Your task to perform on an android device: turn off notifications settings in the gmail app Image 0: 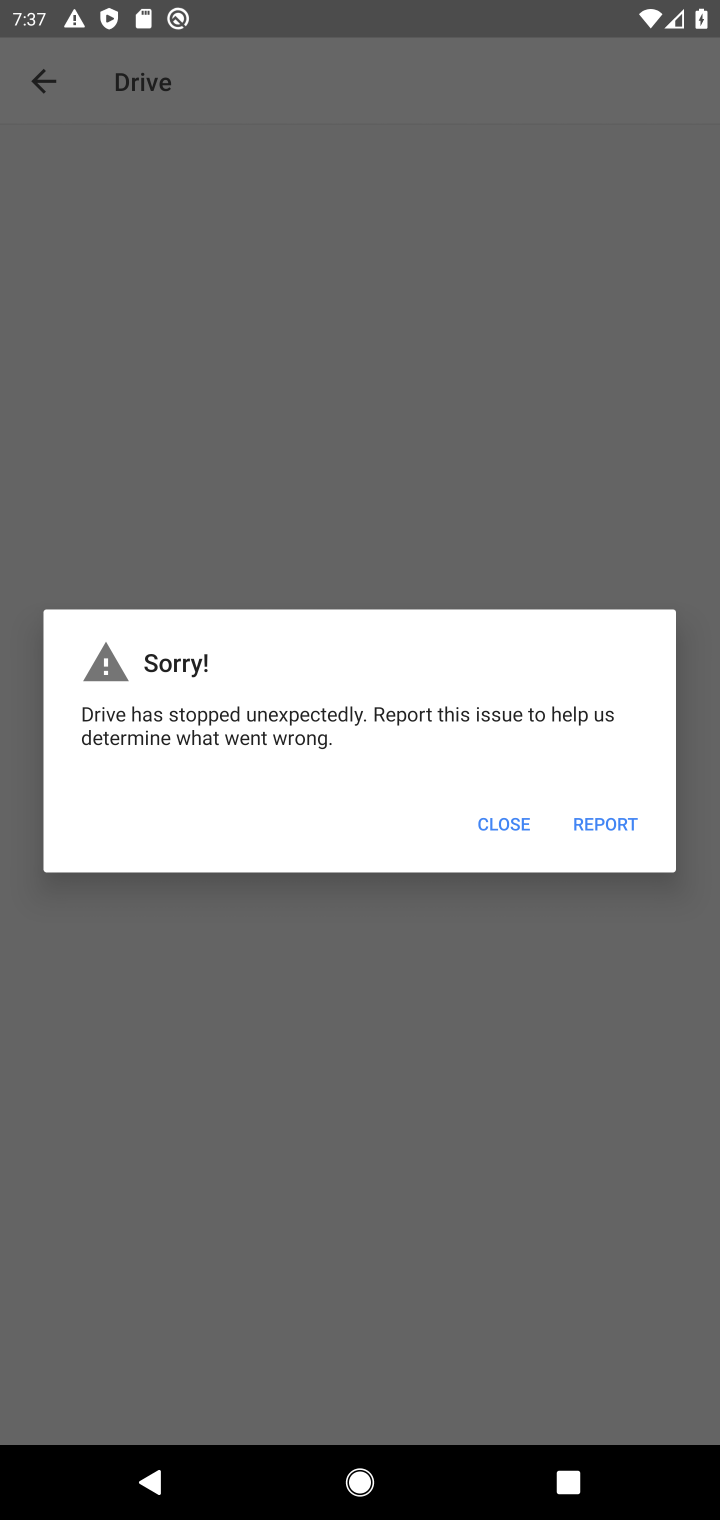
Step 0: press home button
Your task to perform on an android device: turn off notifications settings in the gmail app Image 1: 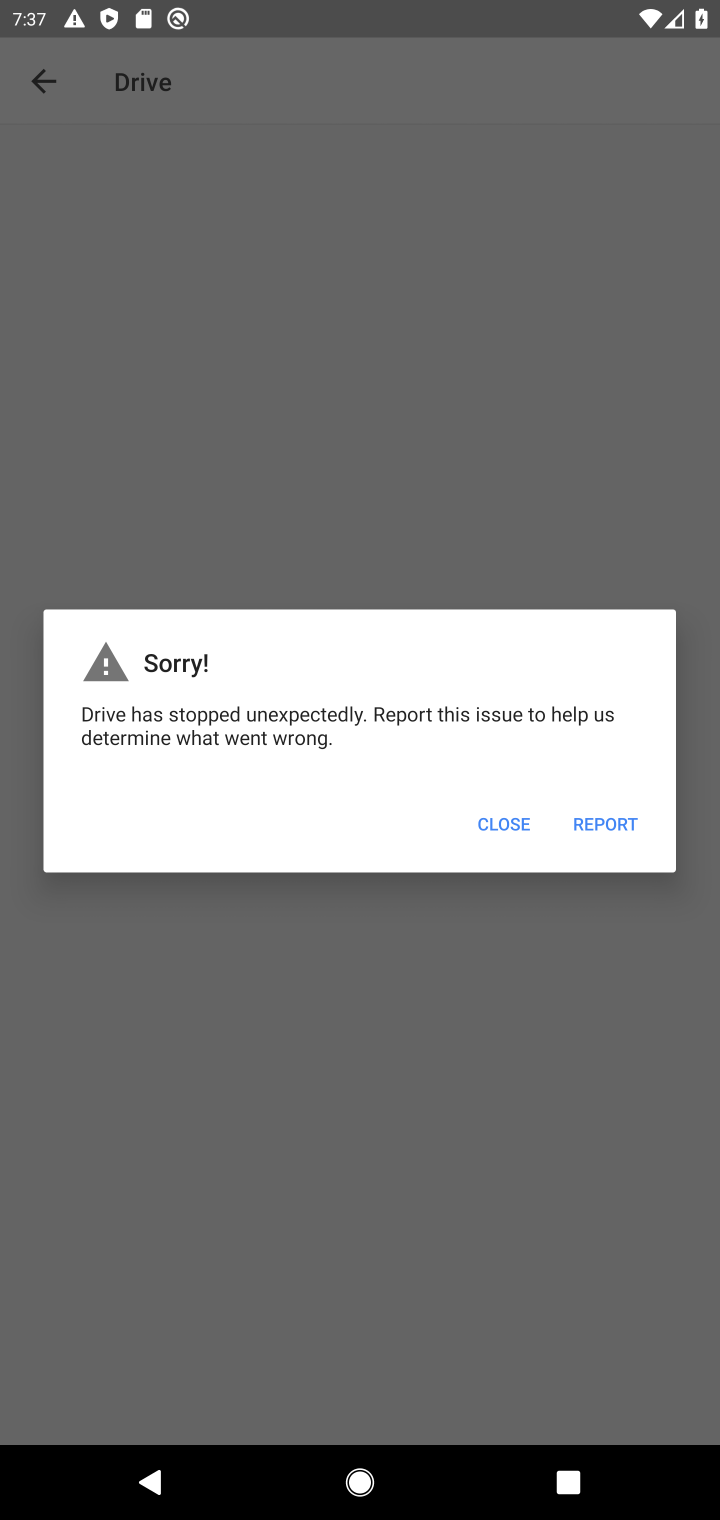
Step 1: press home button
Your task to perform on an android device: turn off notifications settings in the gmail app Image 2: 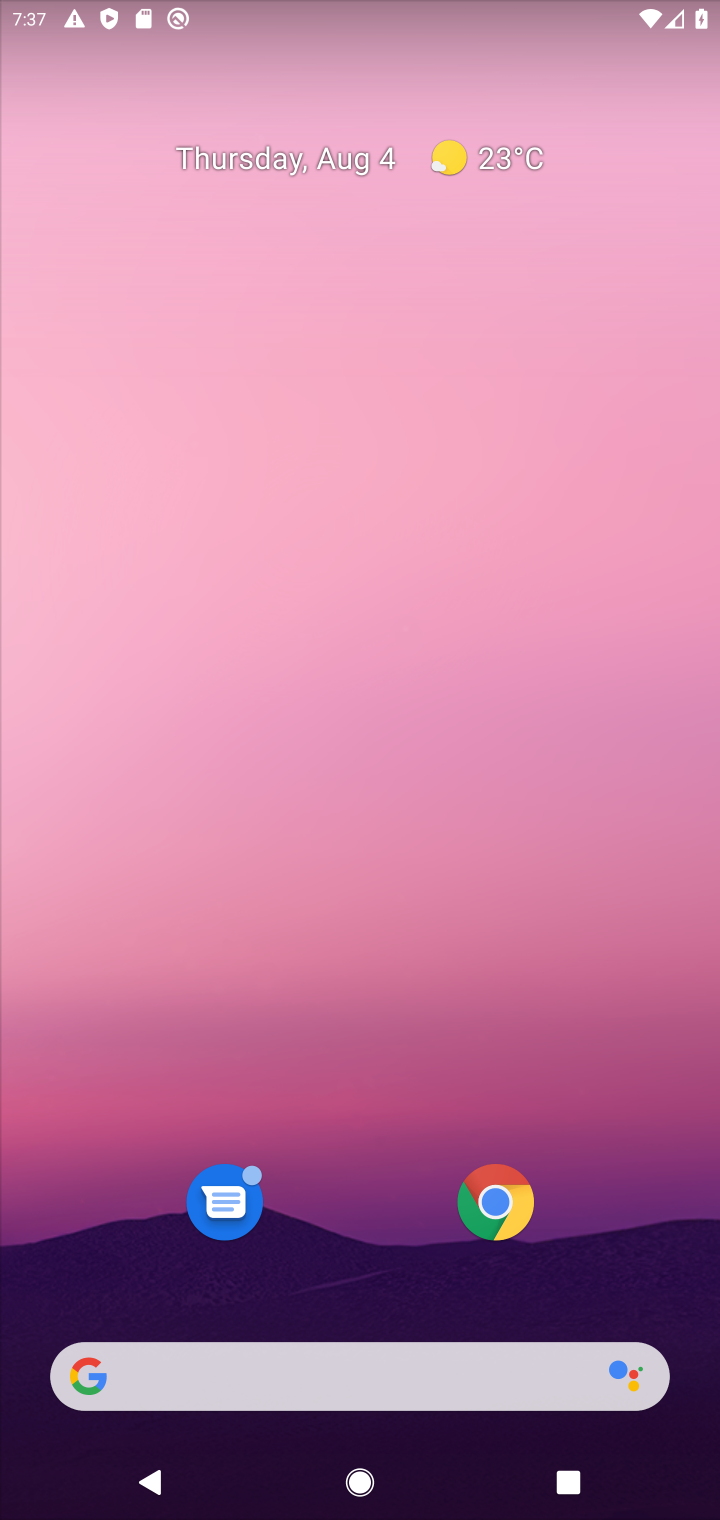
Step 2: drag from (385, 924) to (621, 125)
Your task to perform on an android device: turn off notifications settings in the gmail app Image 3: 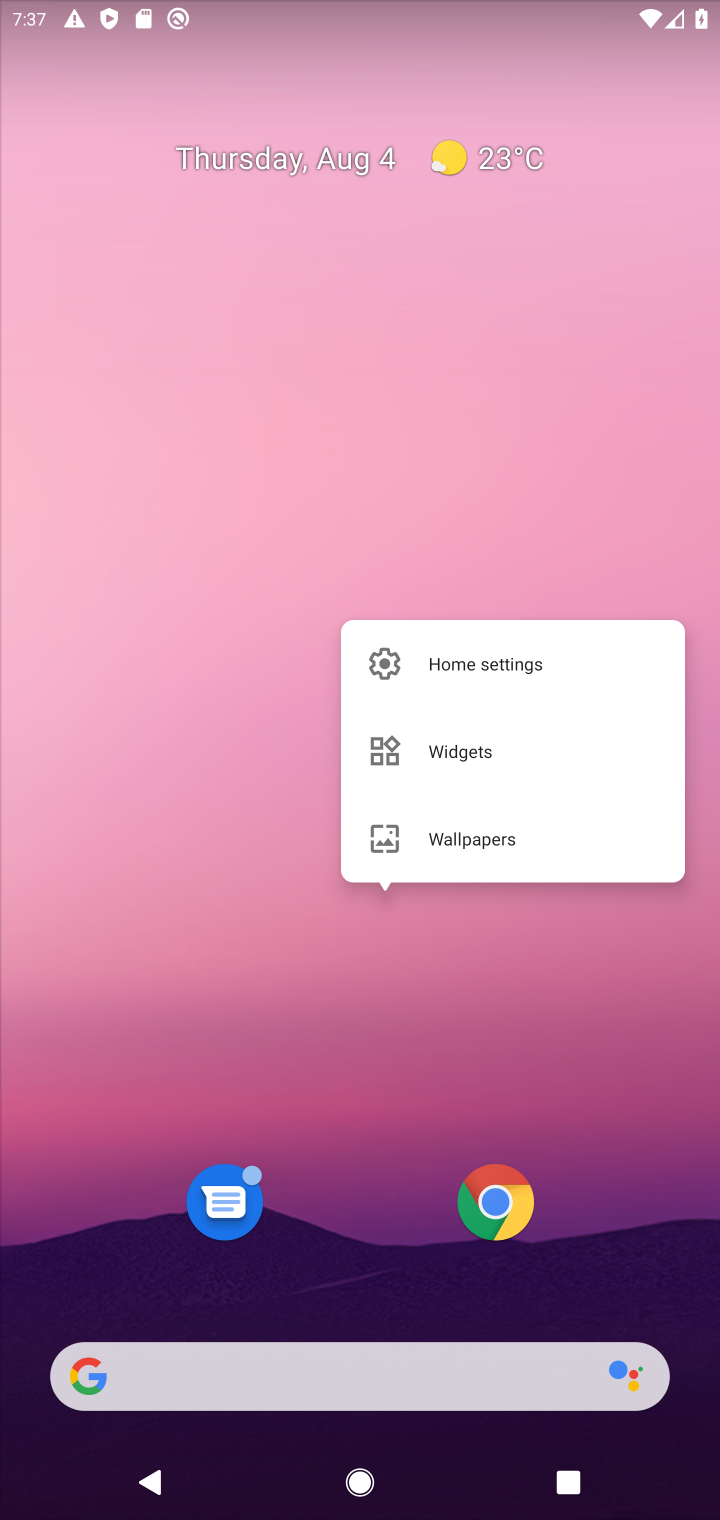
Step 3: drag from (357, 967) to (537, 100)
Your task to perform on an android device: turn off notifications settings in the gmail app Image 4: 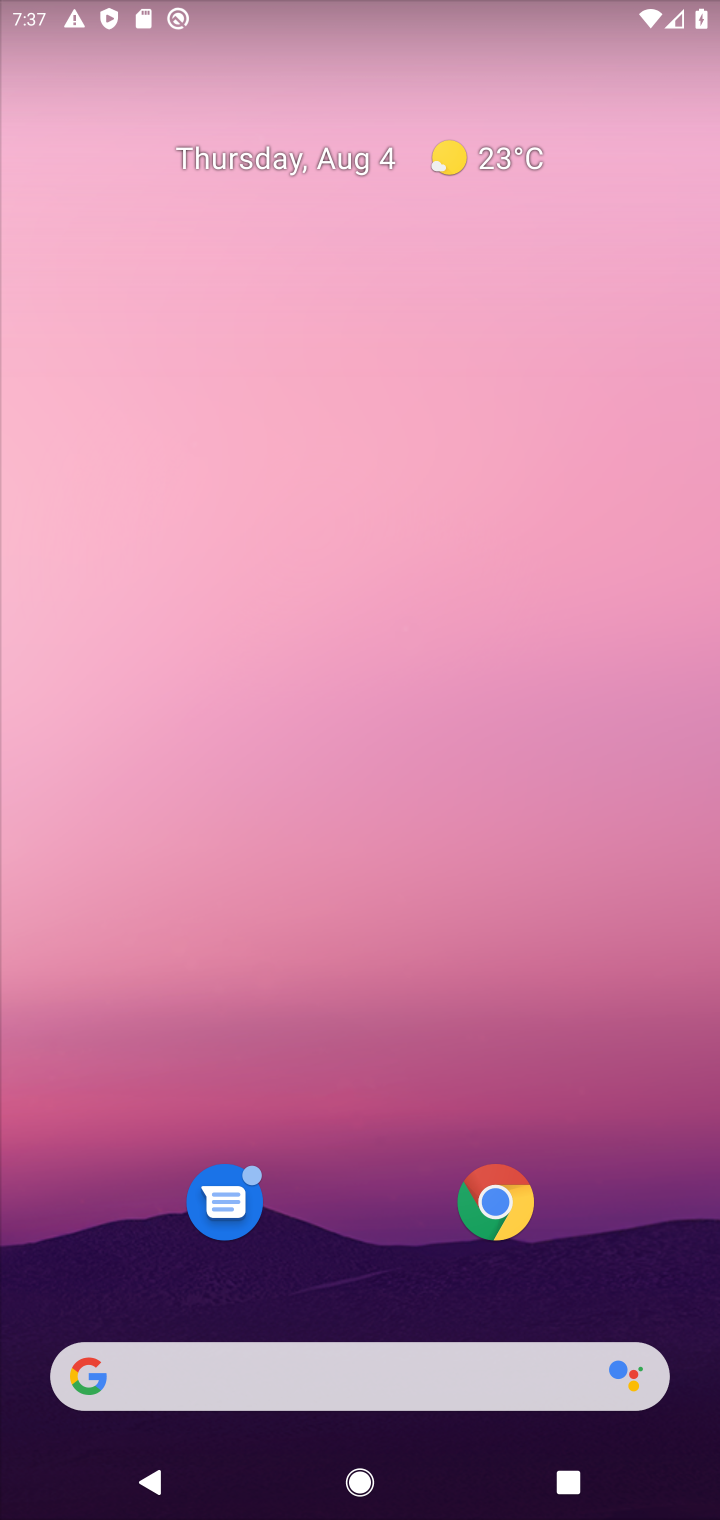
Step 4: drag from (391, 537) to (449, 168)
Your task to perform on an android device: turn off notifications settings in the gmail app Image 5: 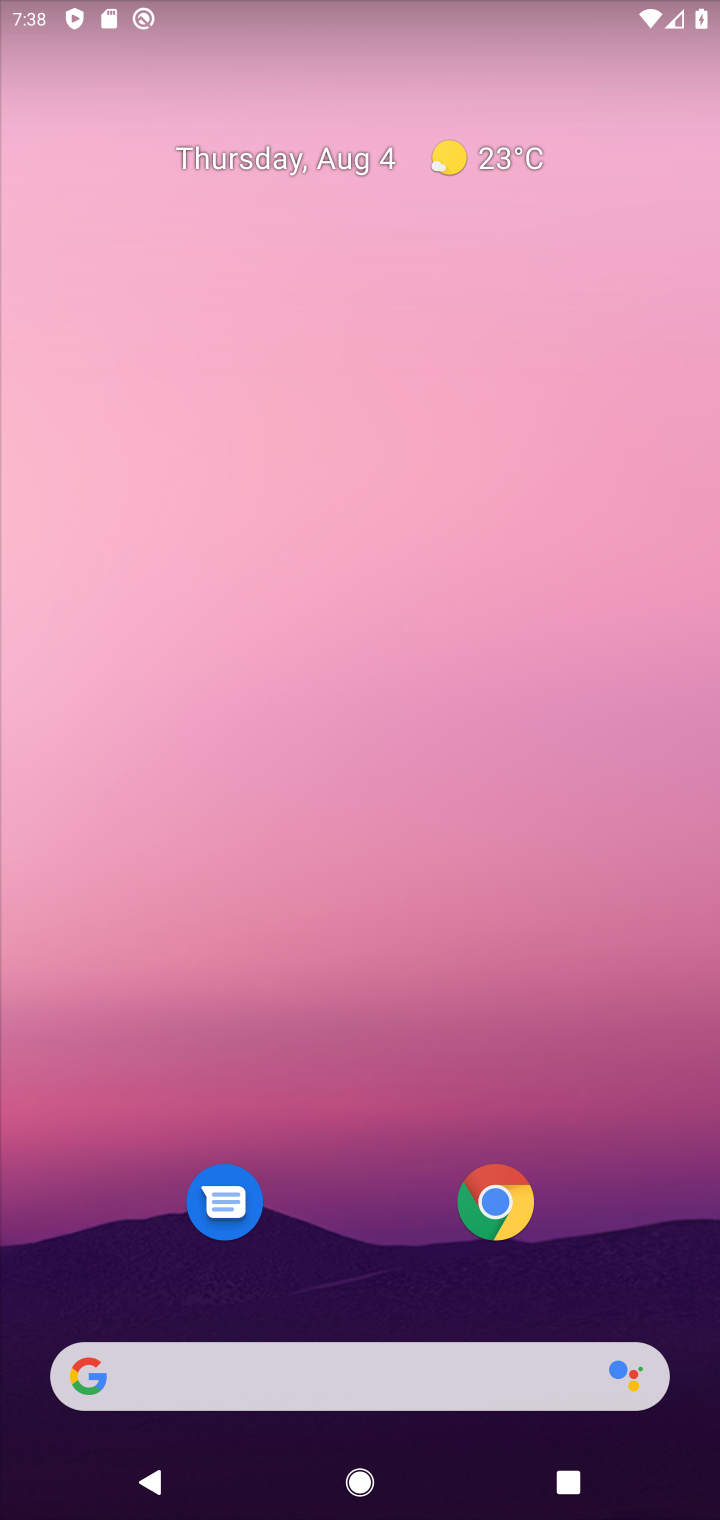
Step 5: drag from (363, 1108) to (453, 157)
Your task to perform on an android device: turn off notifications settings in the gmail app Image 6: 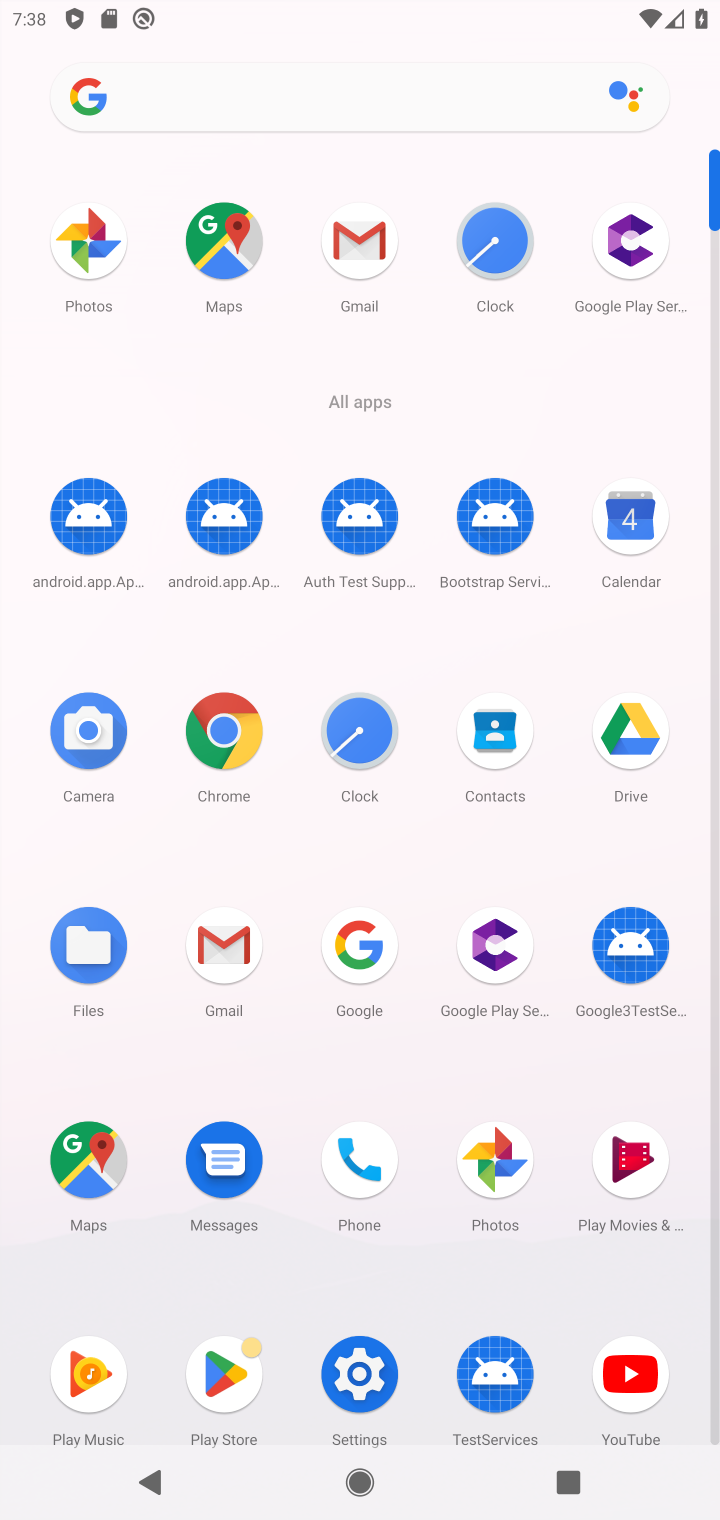
Step 6: click (251, 920)
Your task to perform on an android device: turn off notifications settings in the gmail app Image 7: 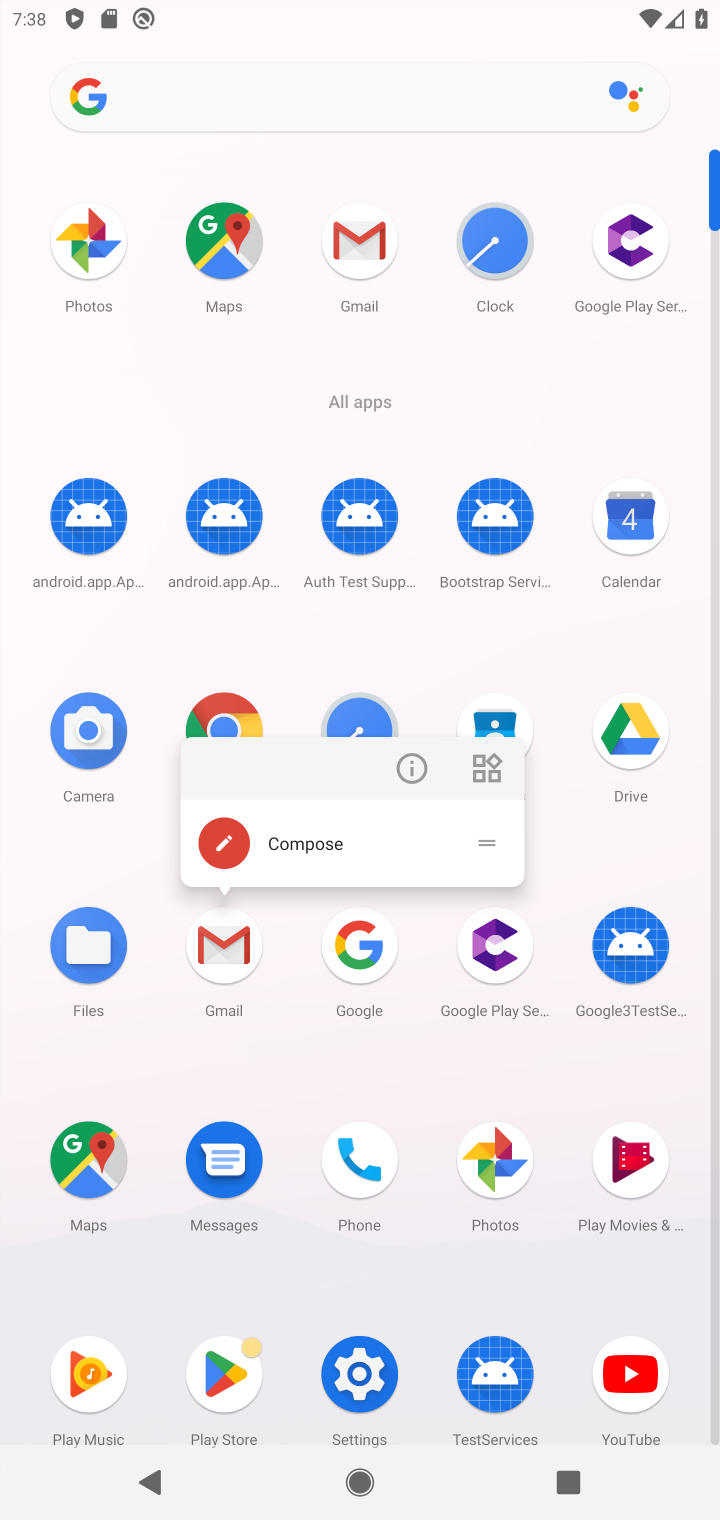
Step 7: click (394, 762)
Your task to perform on an android device: turn off notifications settings in the gmail app Image 8: 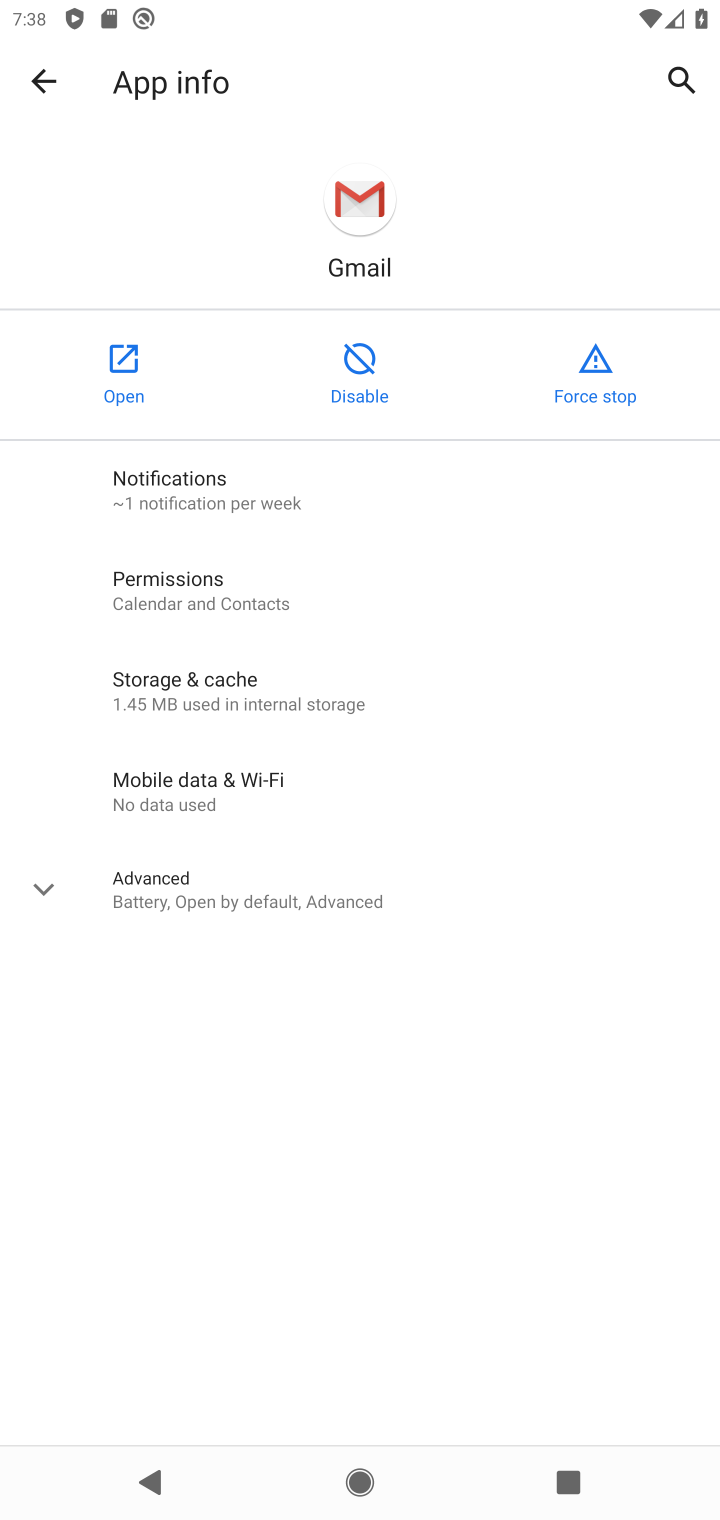
Step 8: click (454, 870)
Your task to perform on an android device: turn off notifications settings in the gmail app Image 9: 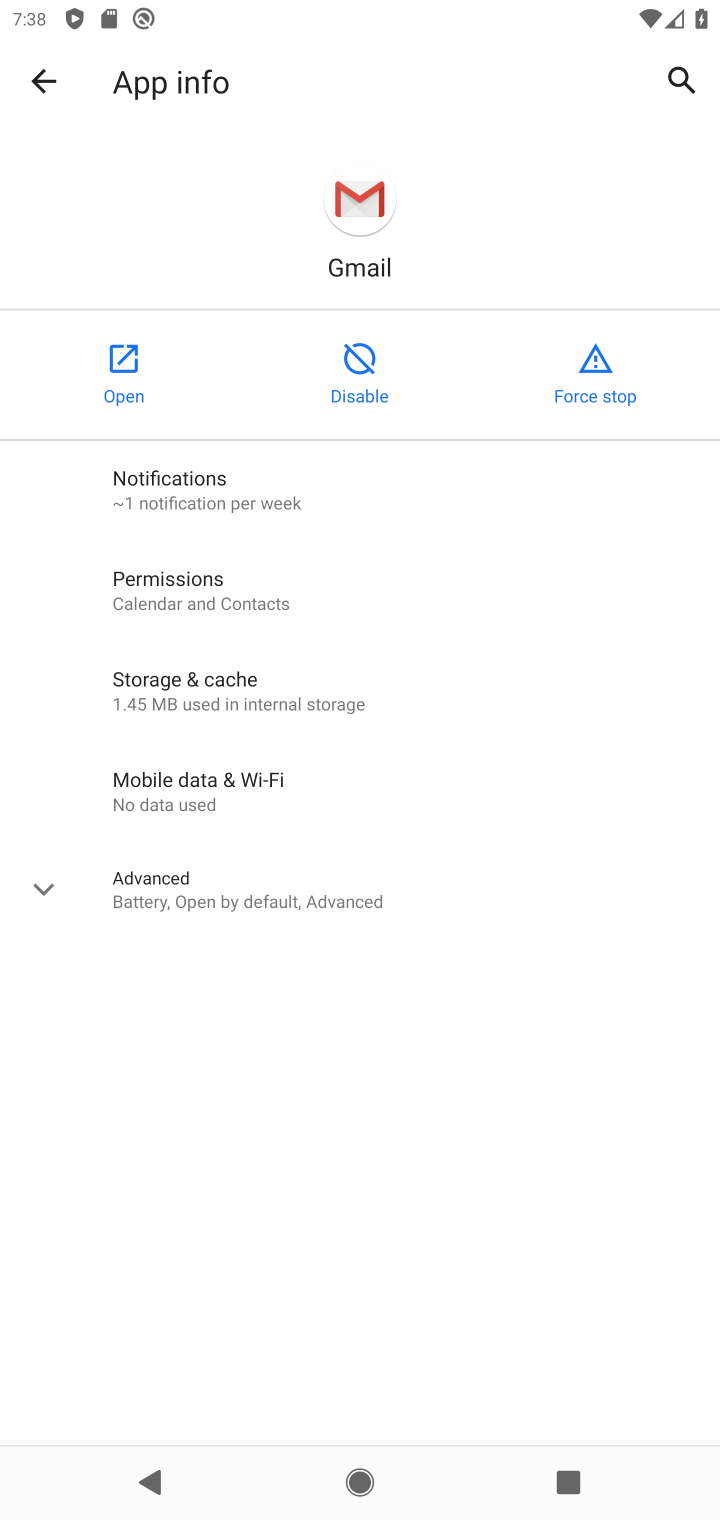
Step 9: press back button
Your task to perform on an android device: turn off notifications settings in the gmail app Image 10: 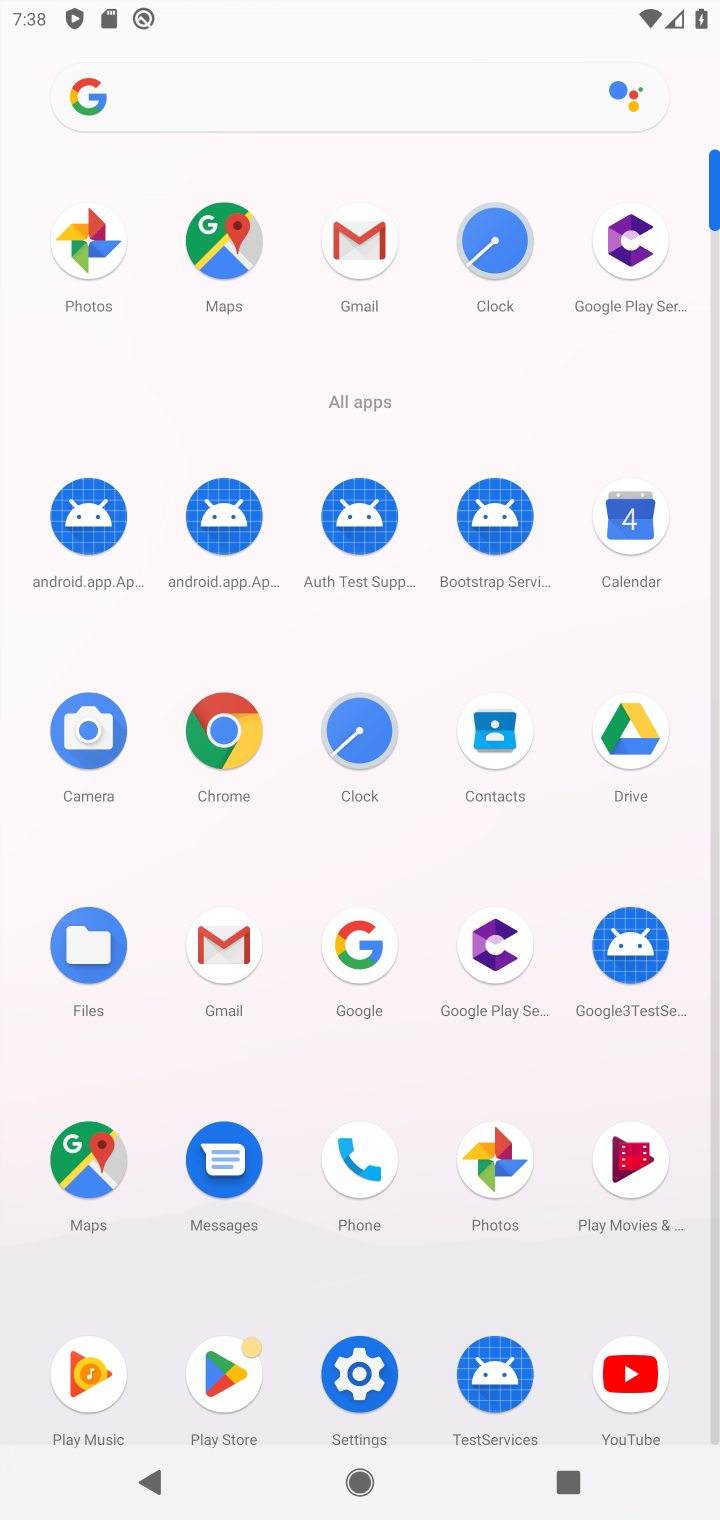
Step 10: click (127, 384)
Your task to perform on an android device: turn off notifications settings in the gmail app Image 11: 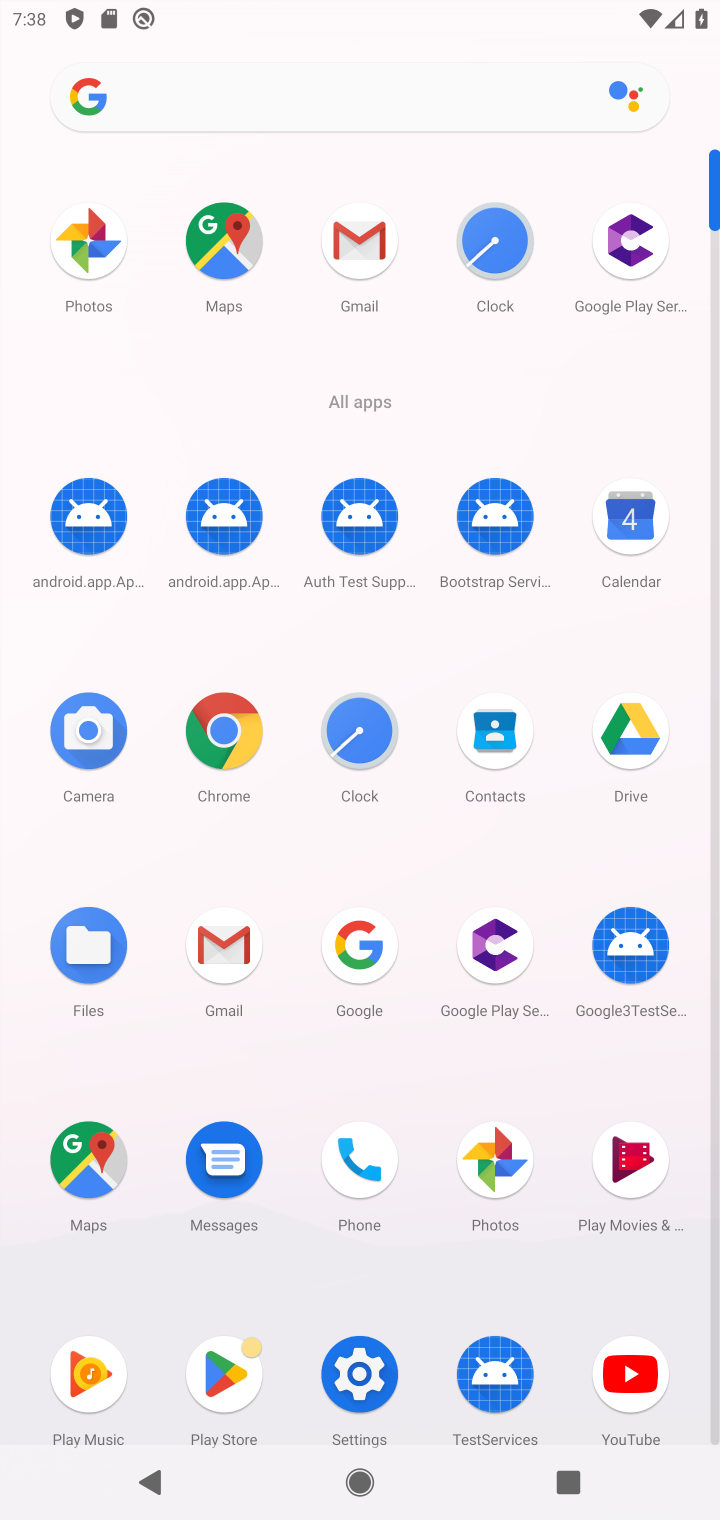
Step 11: click (222, 963)
Your task to perform on an android device: turn off notifications settings in the gmail app Image 12: 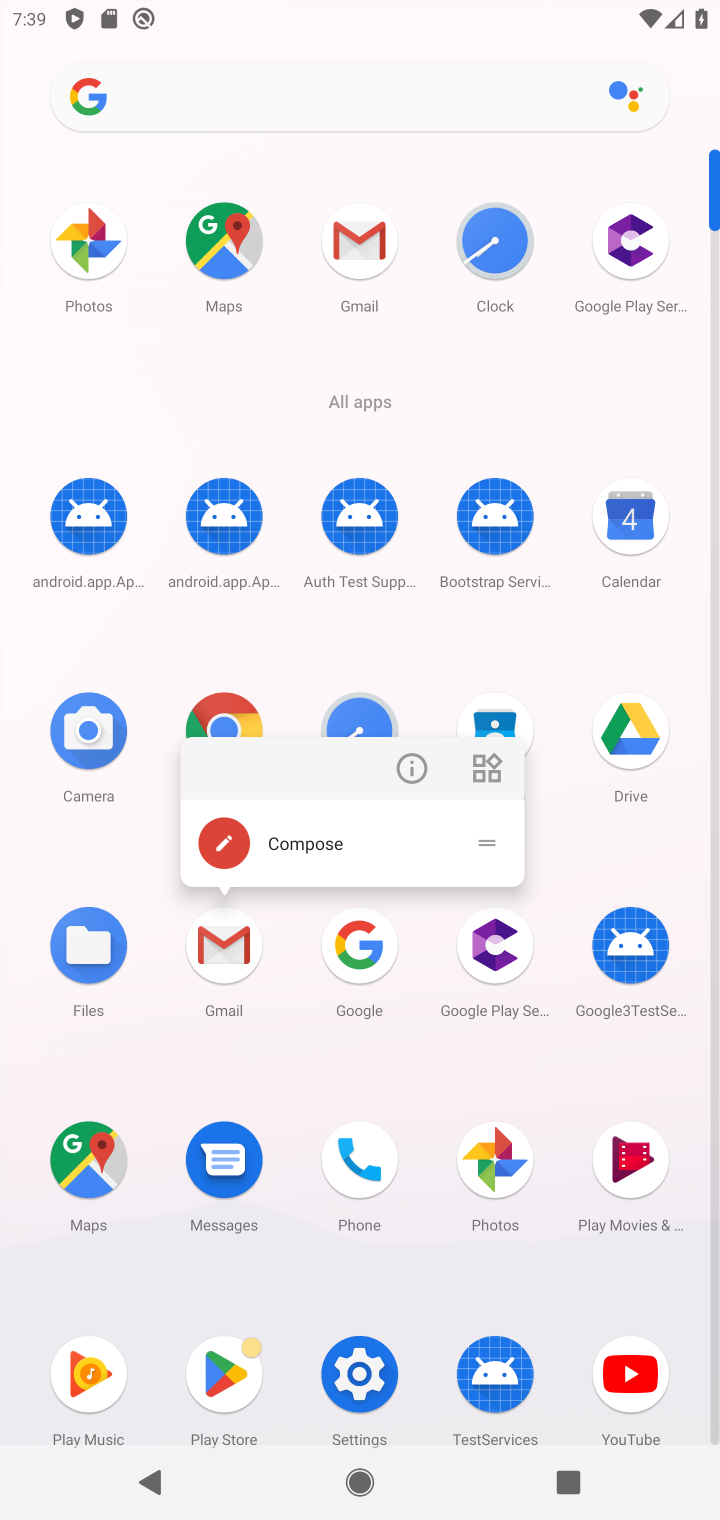
Step 12: click (419, 770)
Your task to perform on an android device: turn off notifications settings in the gmail app Image 13: 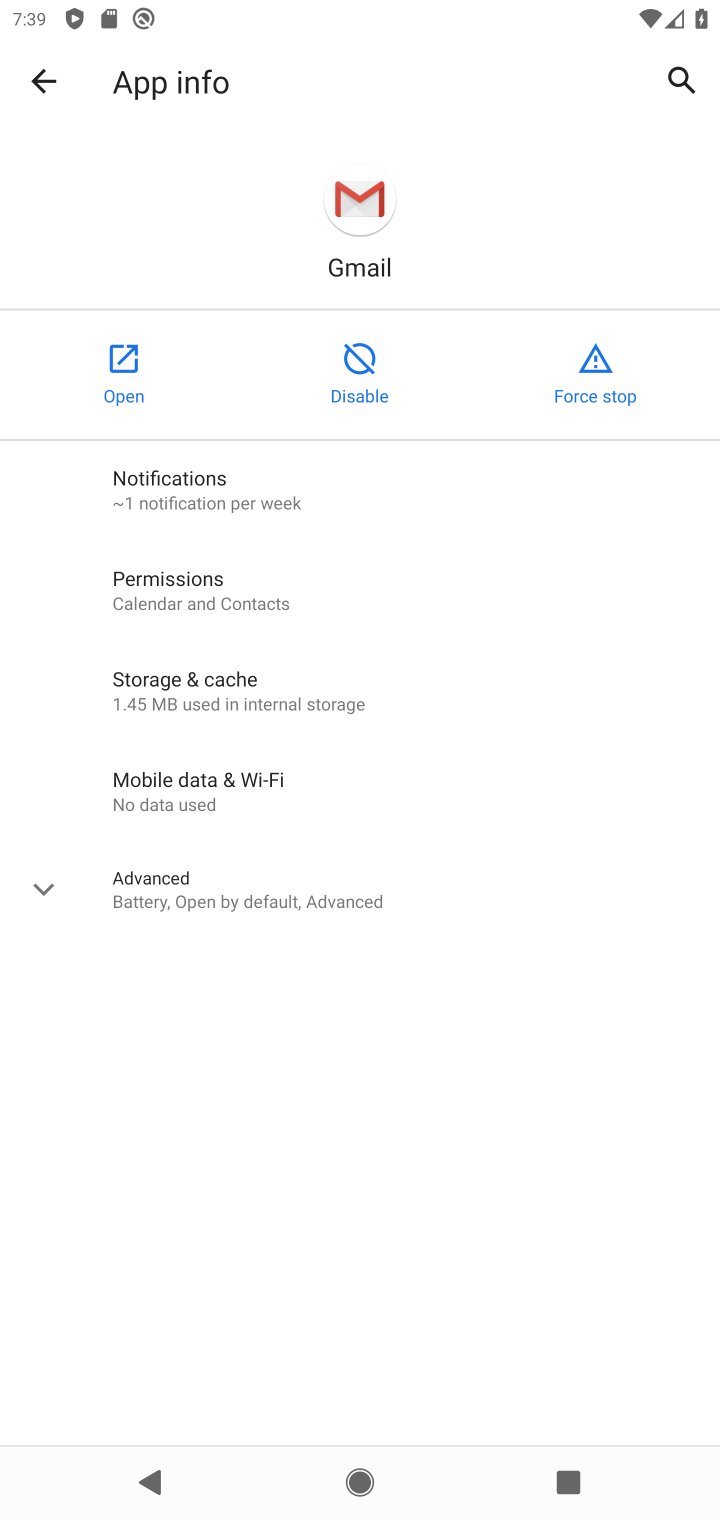
Step 13: click (125, 384)
Your task to perform on an android device: turn off notifications settings in the gmail app Image 14: 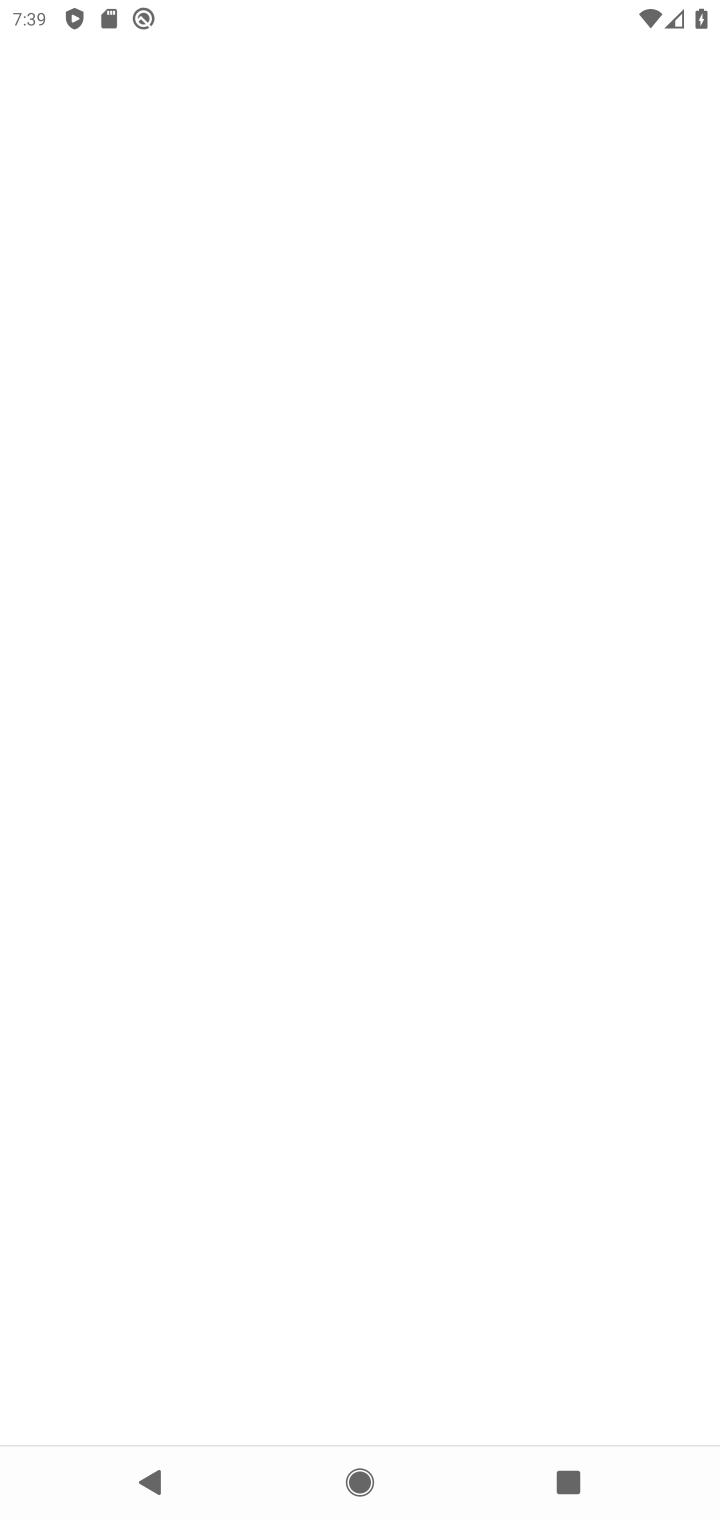
Step 14: click (125, 378)
Your task to perform on an android device: turn off notifications settings in the gmail app Image 15: 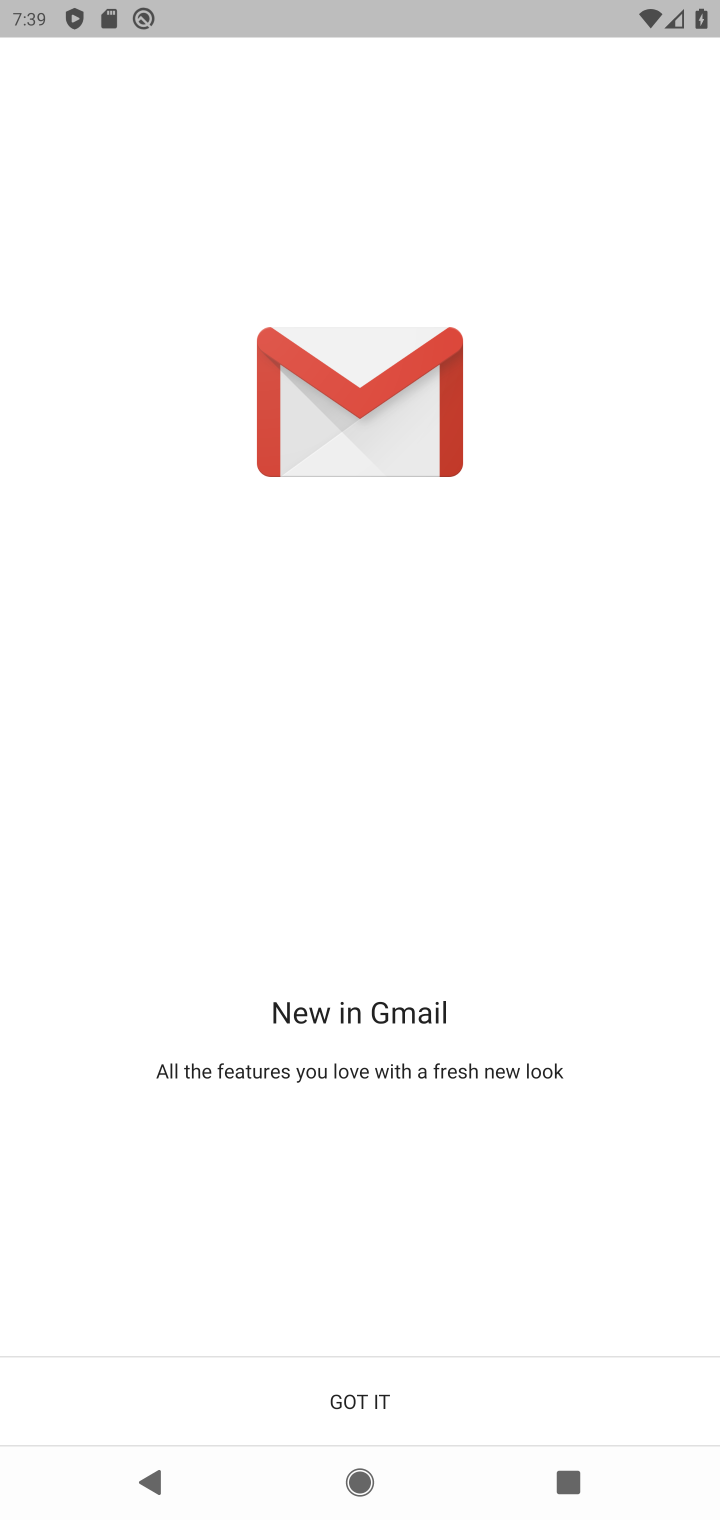
Step 15: drag from (425, 390) to (450, 277)
Your task to perform on an android device: turn off notifications settings in the gmail app Image 16: 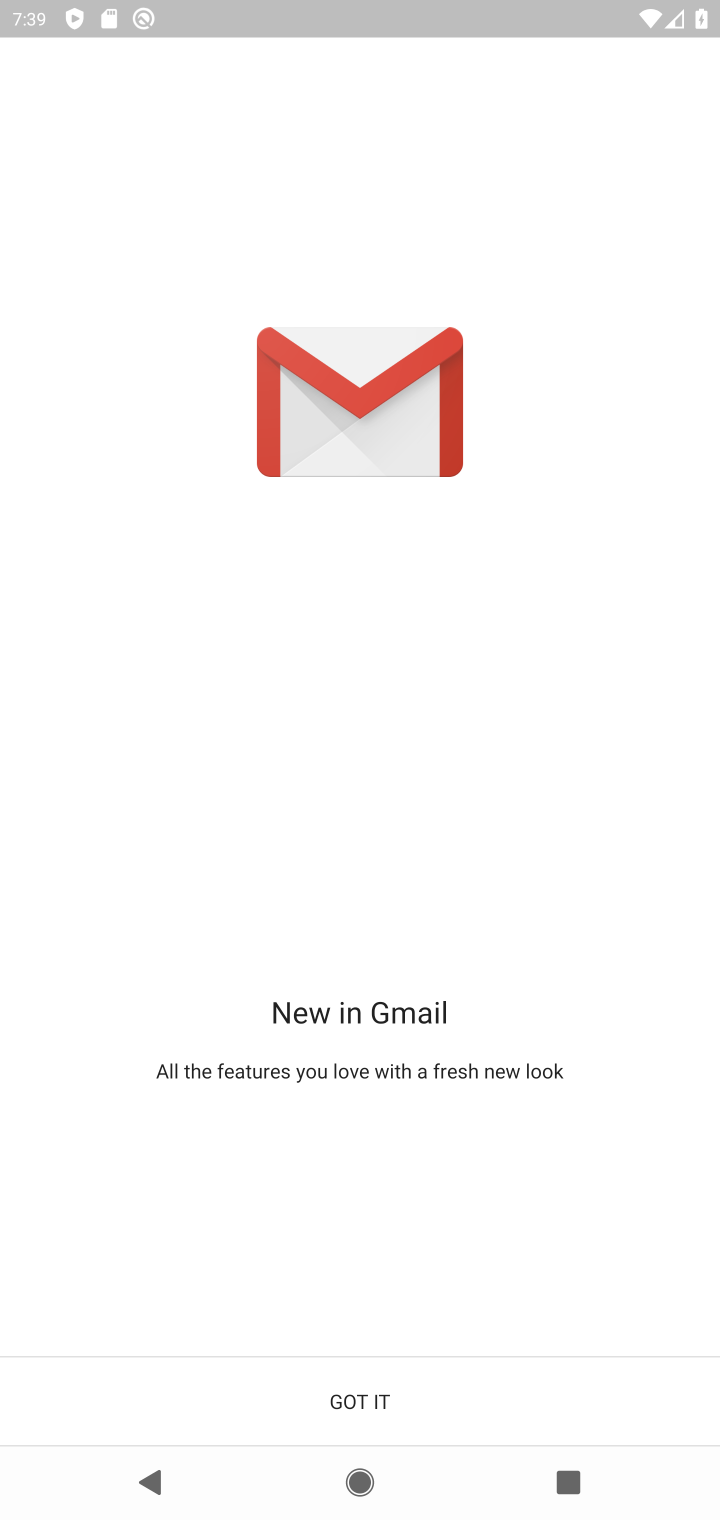
Step 16: click (310, 1399)
Your task to perform on an android device: turn off notifications settings in the gmail app Image 17: 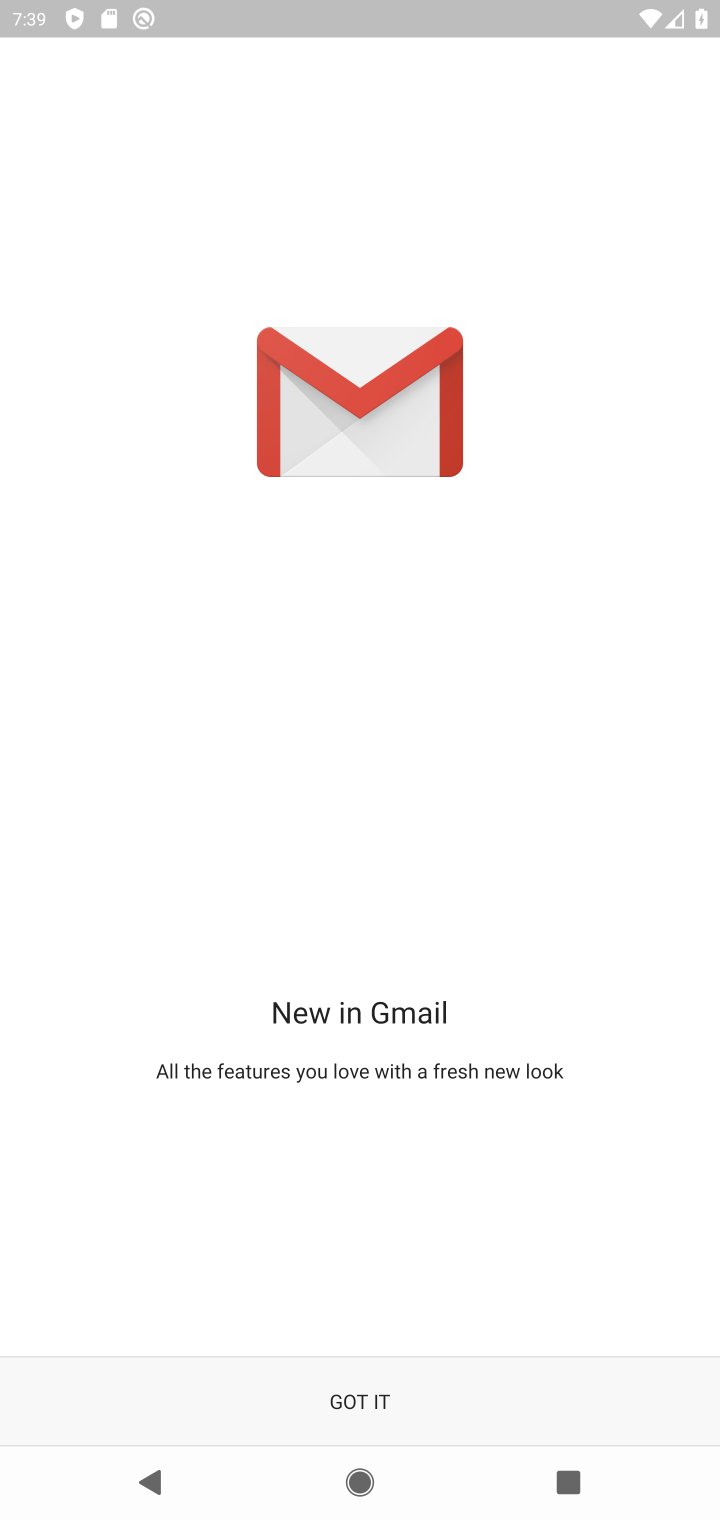
Step 17: click (373, 1407)
Your task to perform on an android device: turn off notifications settings in the gmail app Image 18: 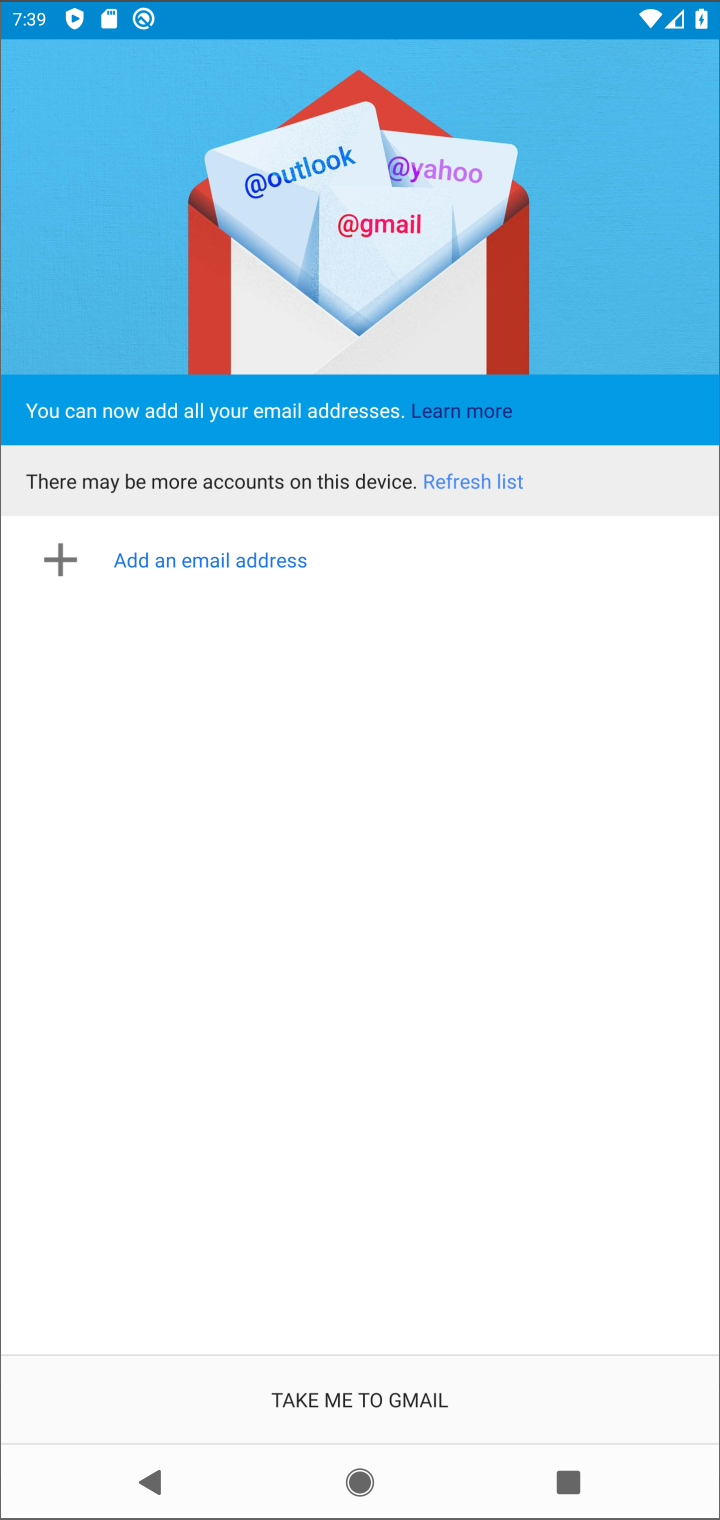
Step 18: click (364, 1400)
Your task to perform on an android device: turn off notifications settings in the gmail app Image 19: 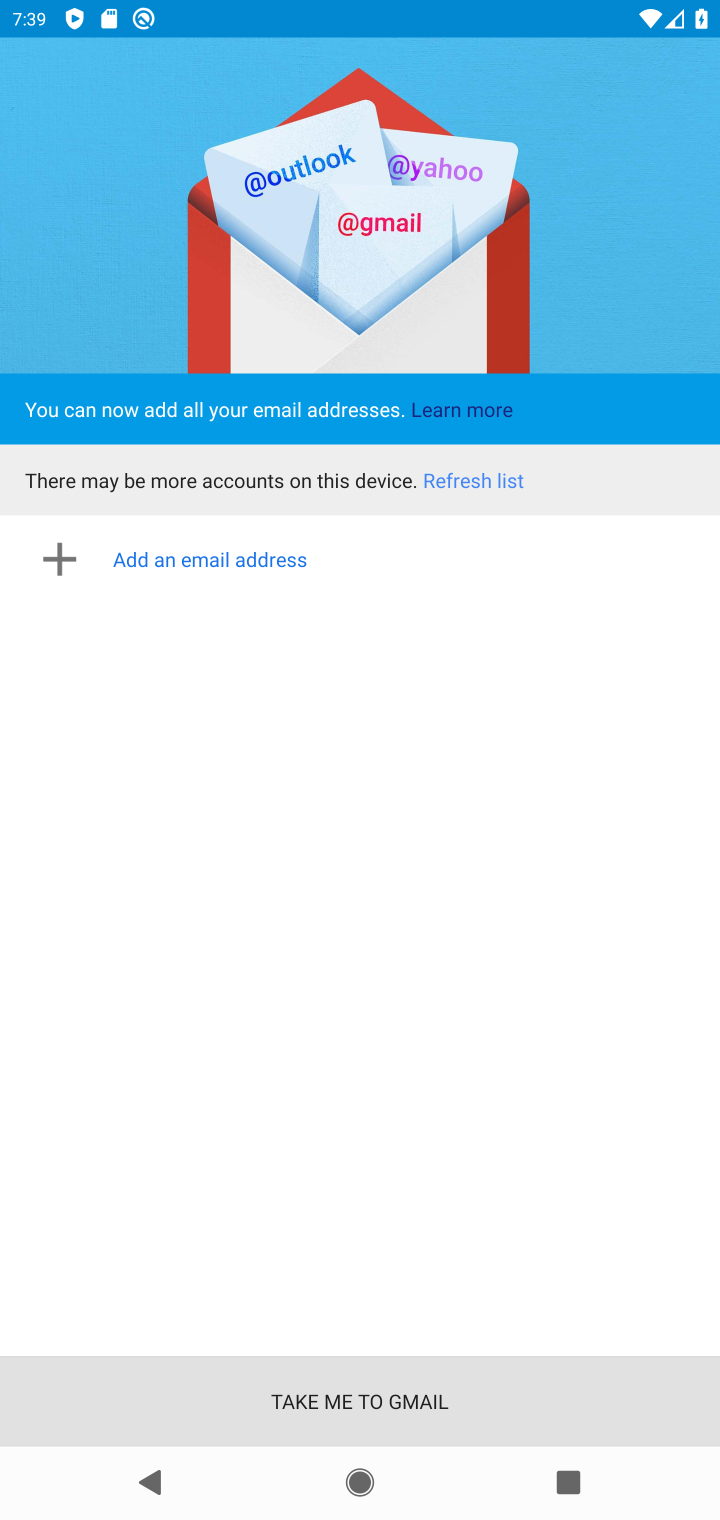
Step 19: click (358, 1394)
Your task to perform on an android device: turn off notifications settings in the gmail app Image 20: 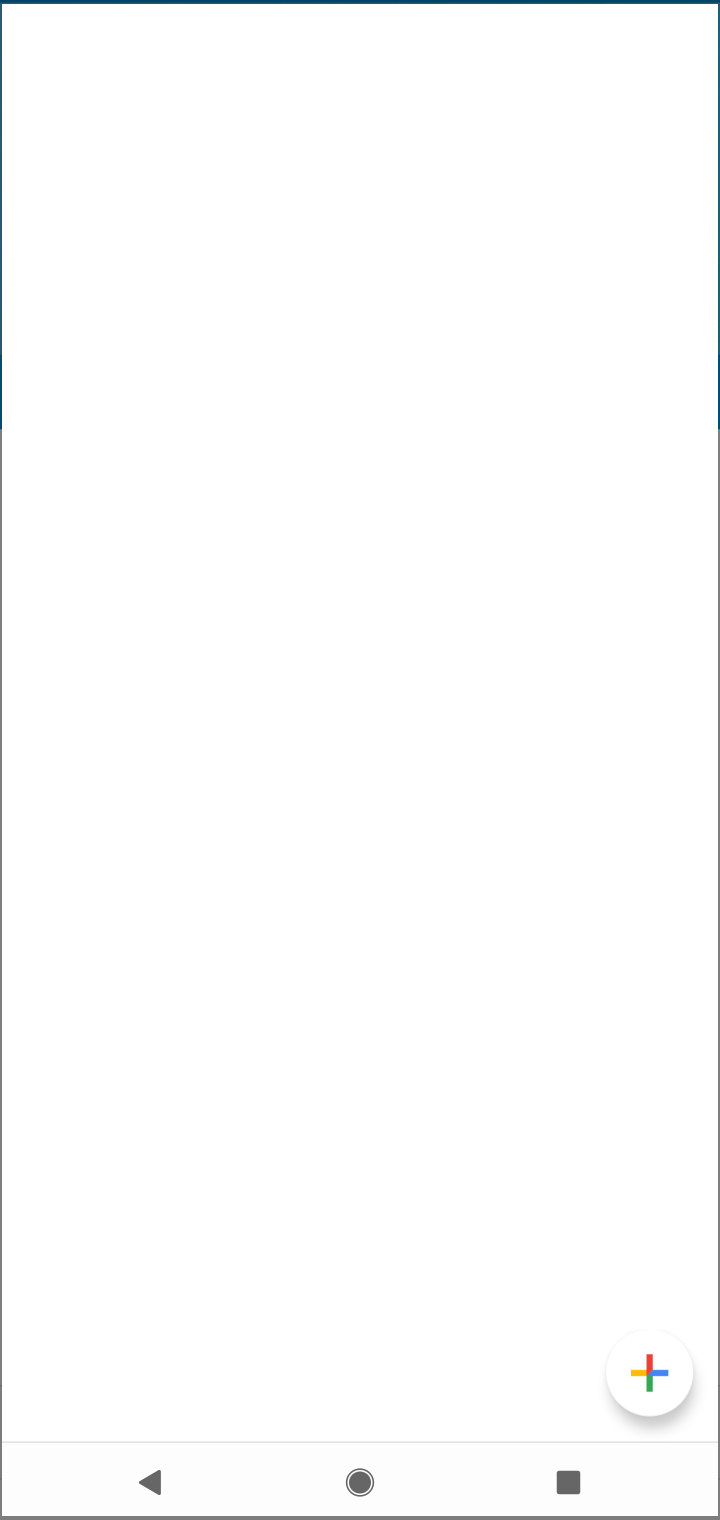
Step 20: click (338, 1412)
Your task to perform on an android device: turn off notifications settings in the gmail app Image 21: 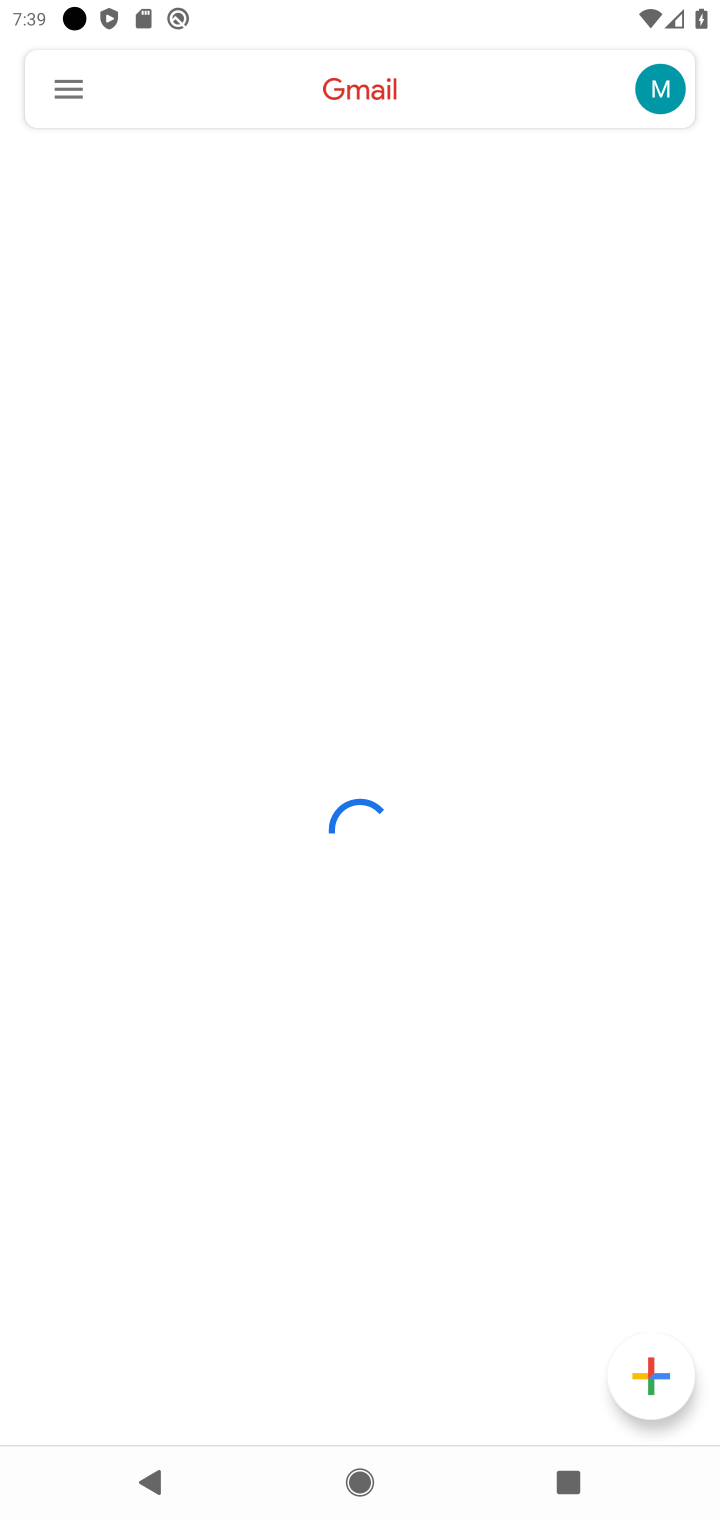
Step 21: click (66, 99)
Your task to perform on an android device: turn off notifications settings in the gmail app Image 22: 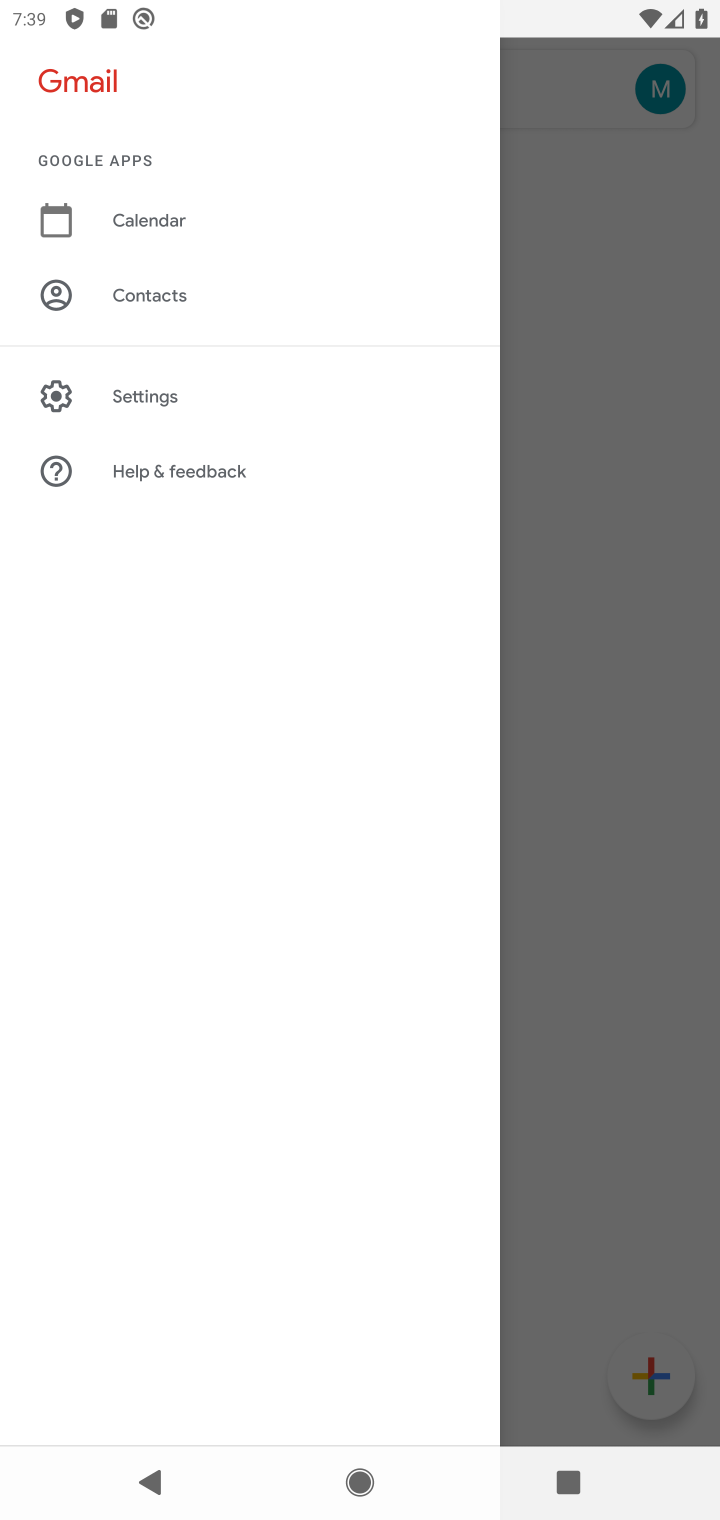
Step 22: click (126, 396)
Your task to perform on an android device: turn off notifications settings in the gmail app Image 23: 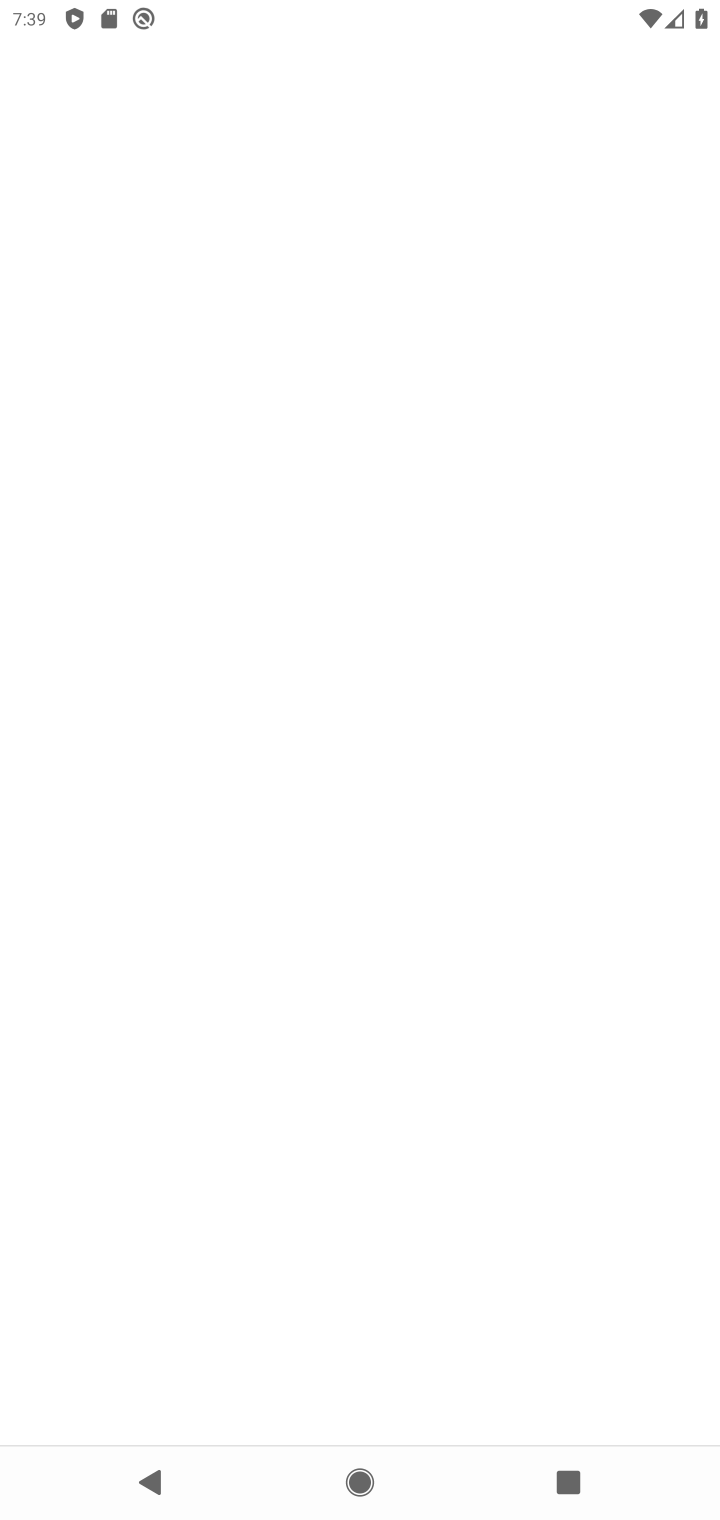
Step 23: drag from (300, 1199) to (369, 514)
Your task to perform on an android device: turn off notifications settings in the gmail app Image 24: 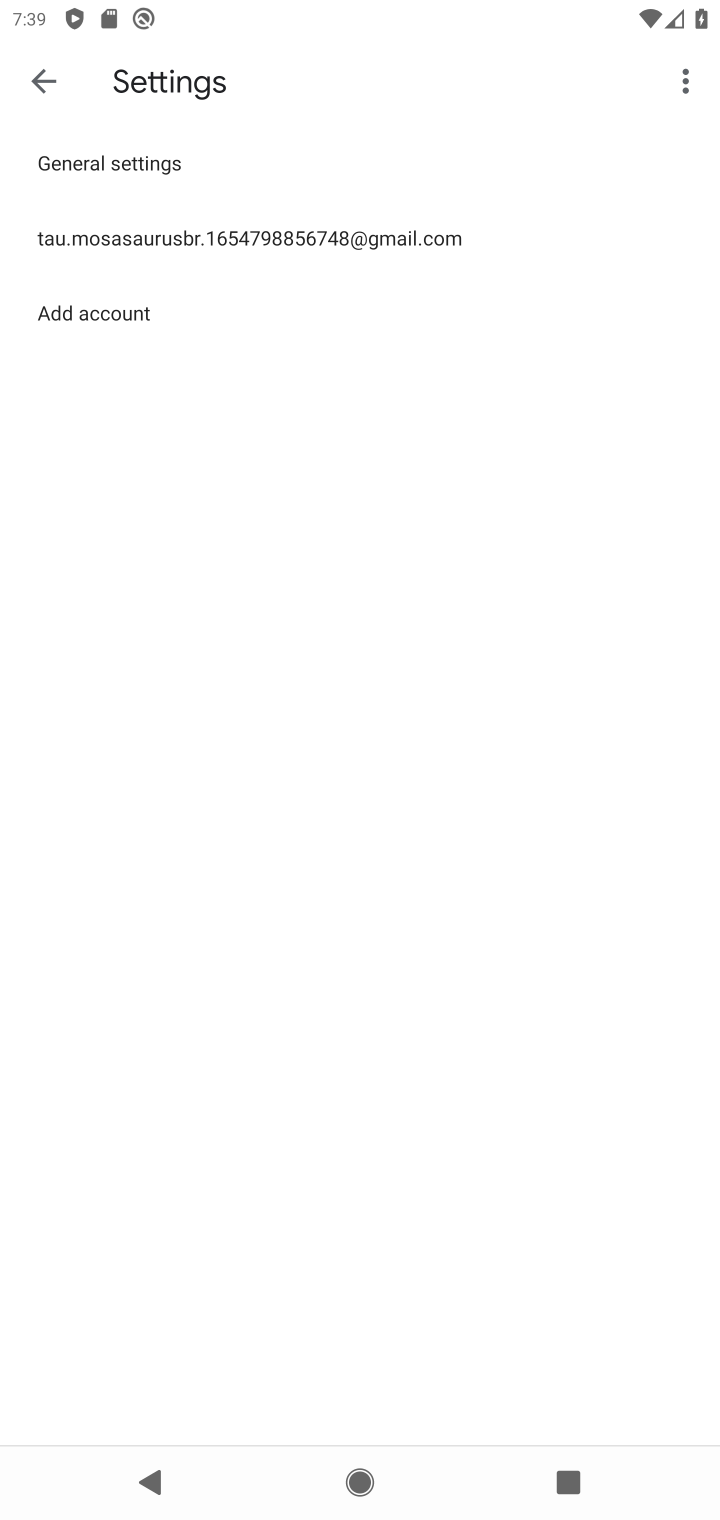
Step 24: click (301, 251)
Your task to perform on an android device: turn off notifications settings in the gmail app Image 25: 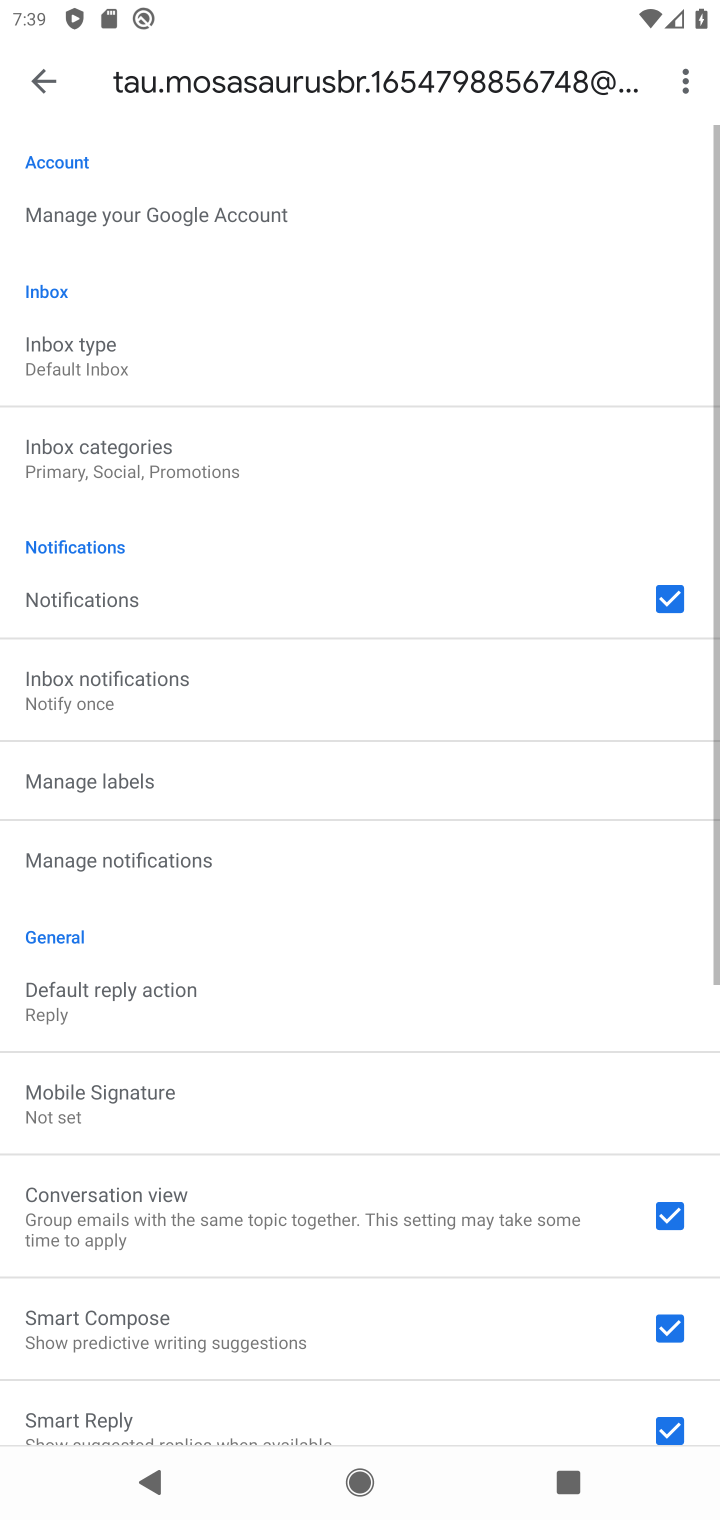
Step 25: click (140, 884)
Your task to perform on an android device: turn off notifications settings in the gmail app Image 26: 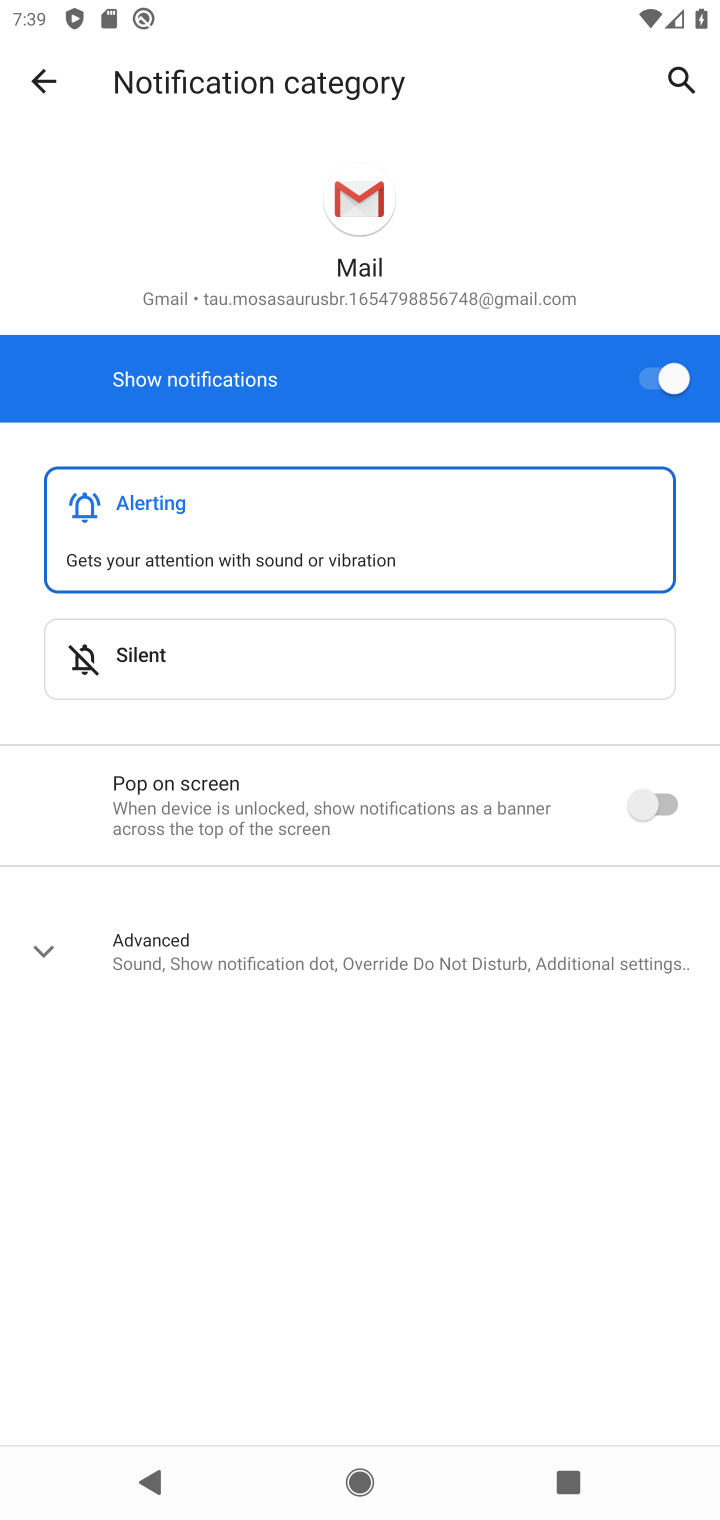
Step 26: click (653, 384)
Your task to perform on an android device: turn off notifications settings in the gmail app Image 27: 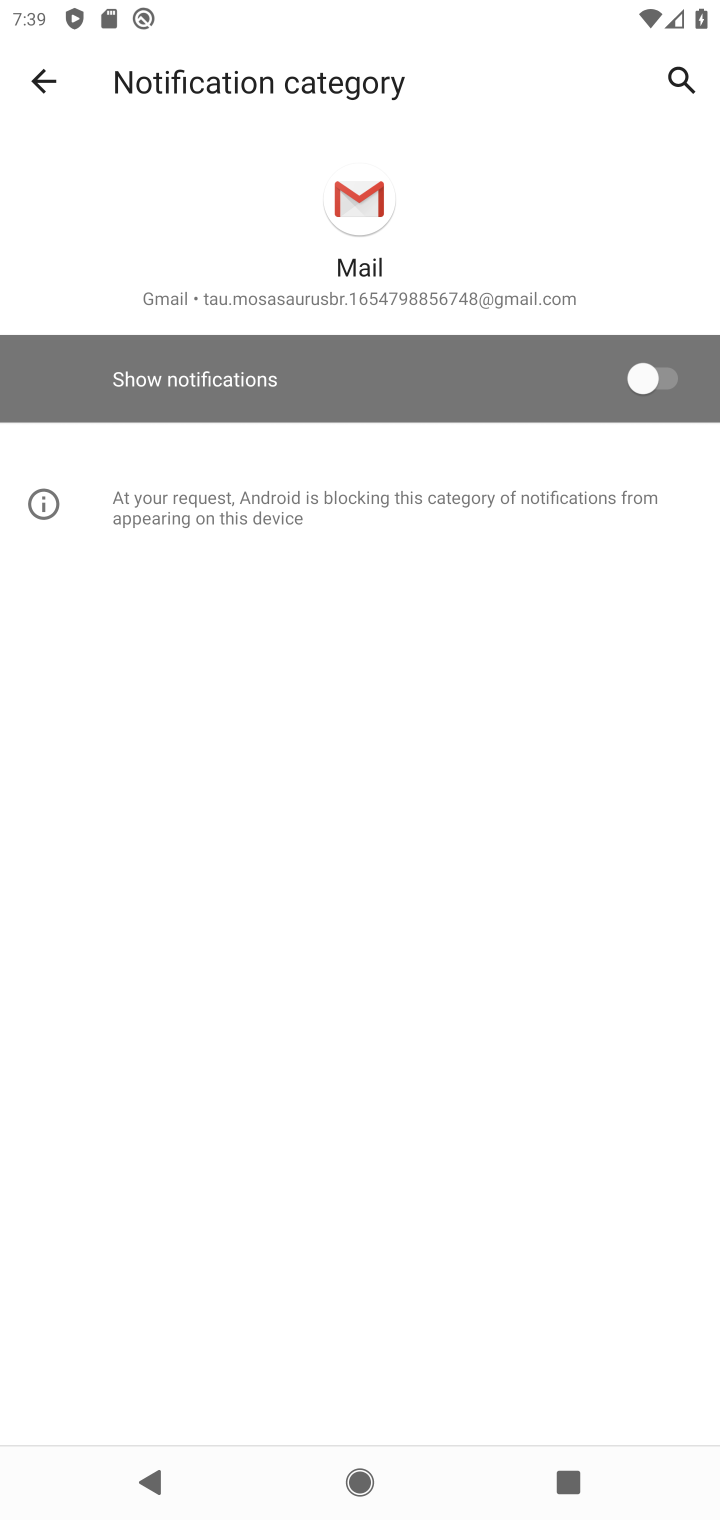
Step 27: task complete